Your task to perform on an android device: toggle priority inbox in the gmail app Image 0: 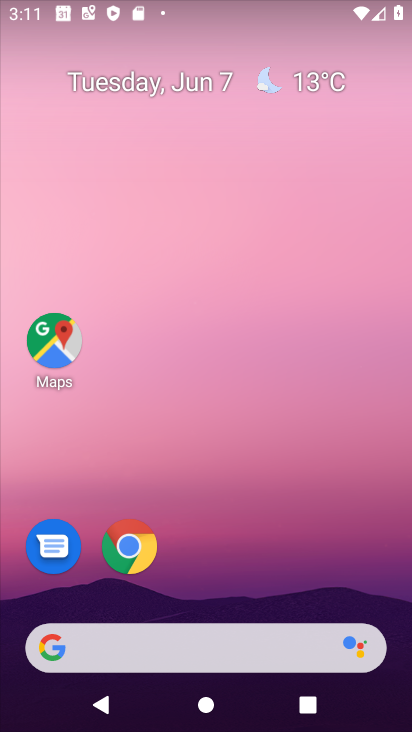
Step 0: drag from (11, 645) to (272, 226)
Your task to perform on an android device: toggle priority inbox in the gmail app Image 1: 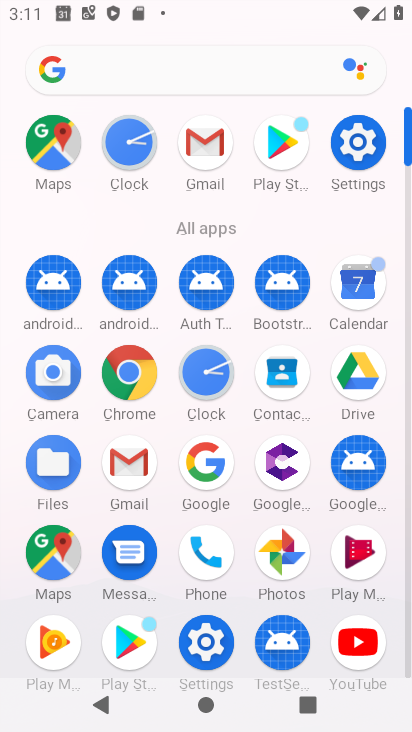
Step 1: click (133, 467)
Your task to perform on an android device: toggle priority inbox in the gmail app Image 2: 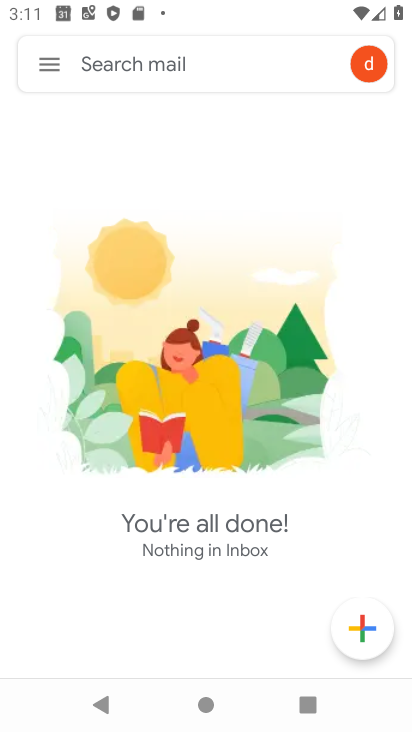
Step 2: click (61, 68)
Your task to perform on an android device: toggle priority inbox in the gmail app Image 3: 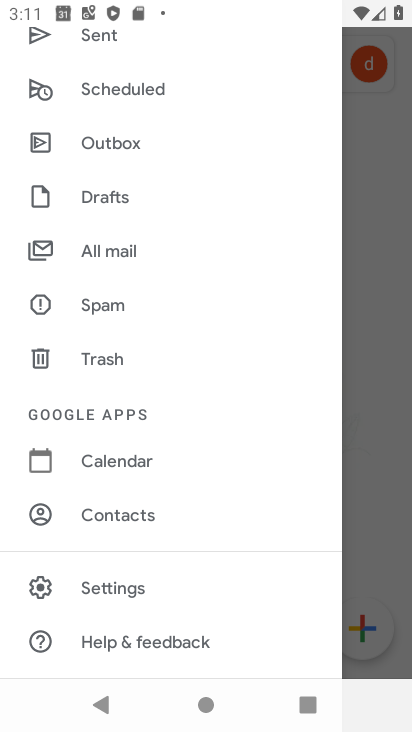
Step 3: click (116, 592)
Your task to perform on an android device: toggle priority inbox in the gmail app Image 4: 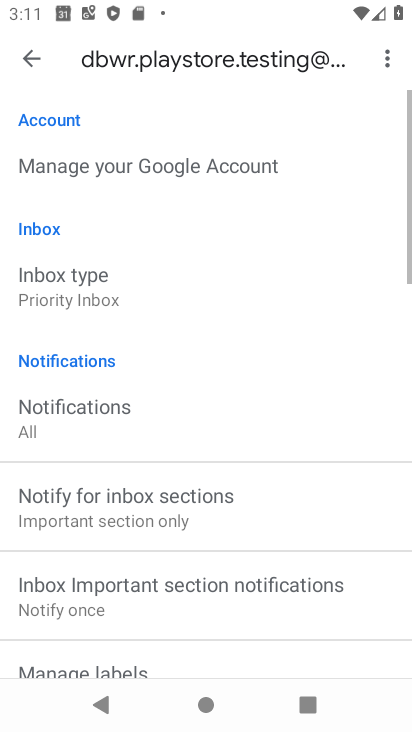
Step 4: click (124, 279)
Your task to perform on an android device: toggle priority inbox in the gmail app Image 5: 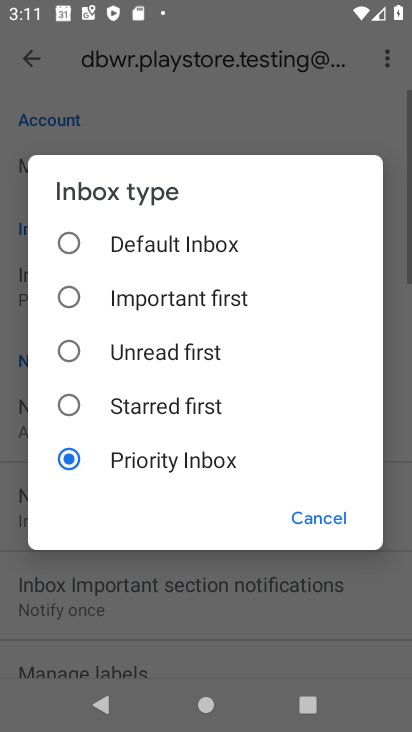
Step 5: click (163, 369)
Your task to perform on an android device: toggle priority inbox in the gmail app Image 6: 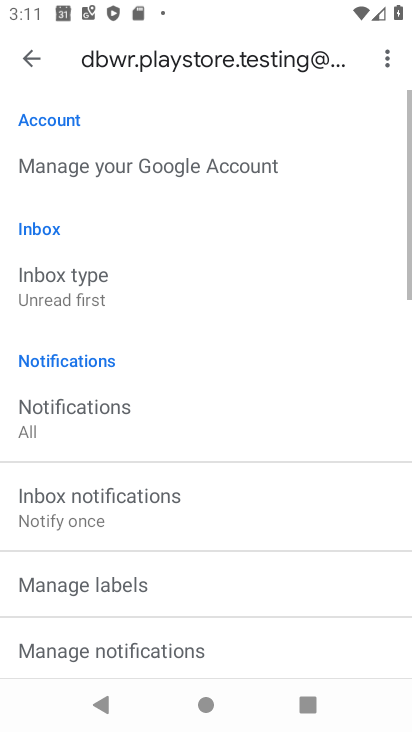
Step 6: task complete